Your task to perform on an android device: Open the calendar and show me this week's events? Image 0: 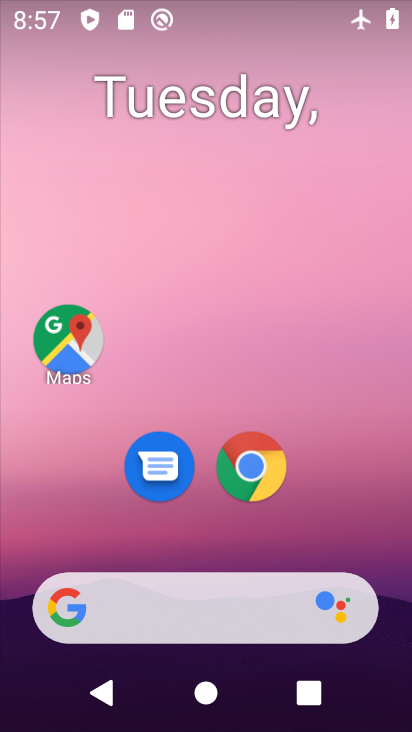
Step 0: drag from (395, 530) to (329, 90)
Your task to perform on an android device: Open the calendar and show me this week's events? Image 1: 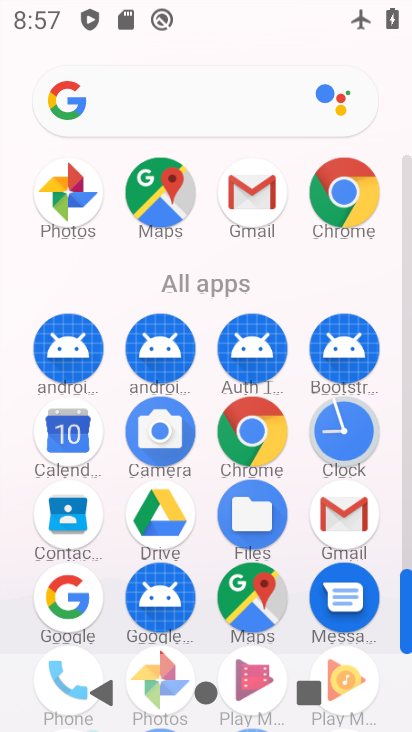
Step 1: click (54, 439)
Your task to perform on an android device: Open the calendar and show me this week's events? Image 2: 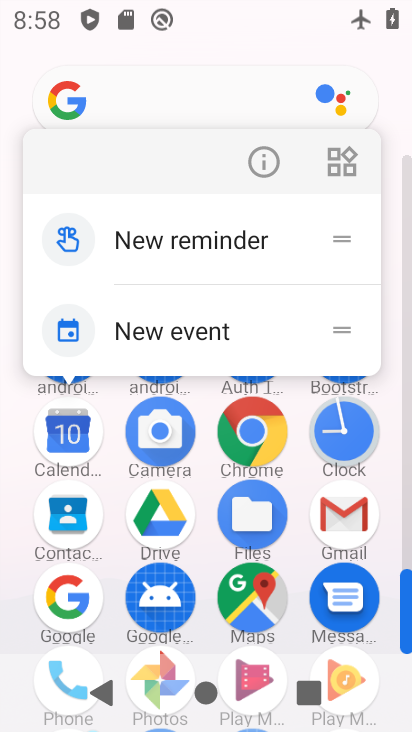
Step 2: click (72, 441)
Your task to perform on an android device: Open the calendar and show me this week's events? Image 3: 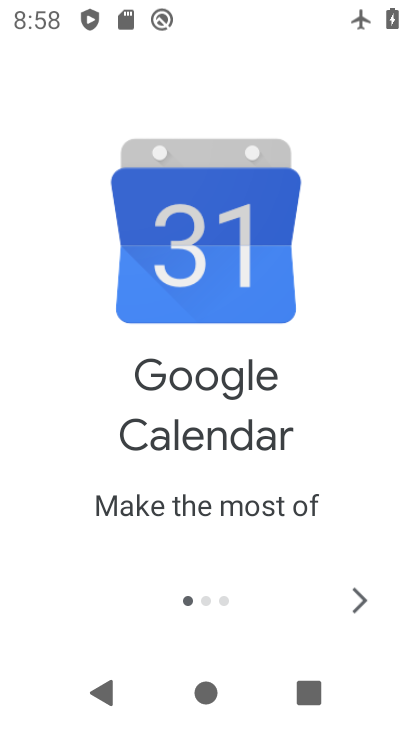
Step 3: click (354, 591)
Your task to perform on an android device: Open the calendar and show me this week's events? Image 4: 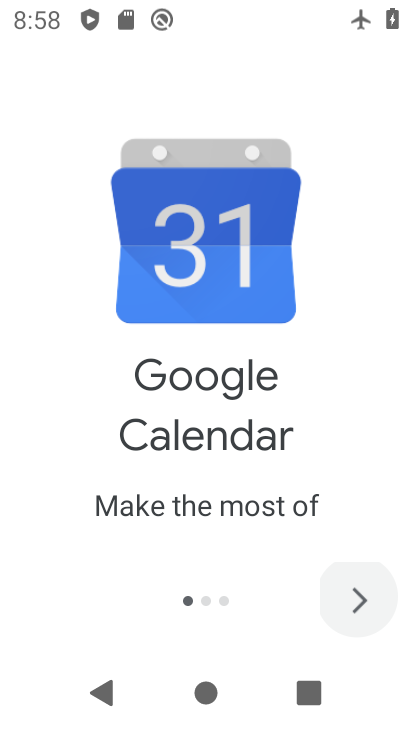
Step 4: click (355, 590)
Your task to perform on an android device: Open the calendar and show me this week's events? Image 5: 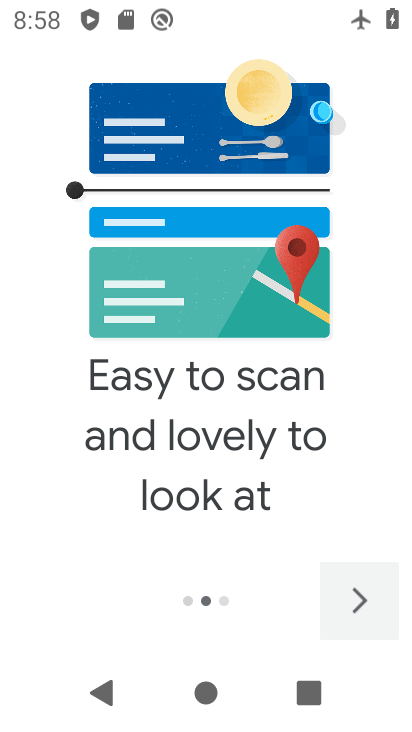
Step 5: click (355, 590)
Your task to perform on an android device: Open the calendar and show me this week's events? Image 6: 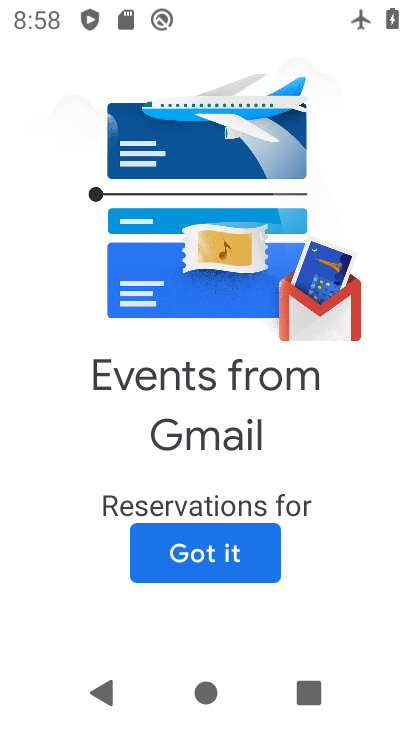
Step 6: click (242, 562)
Your task to perform on an android device: Open the calendar and show me this week's events? Image 7: 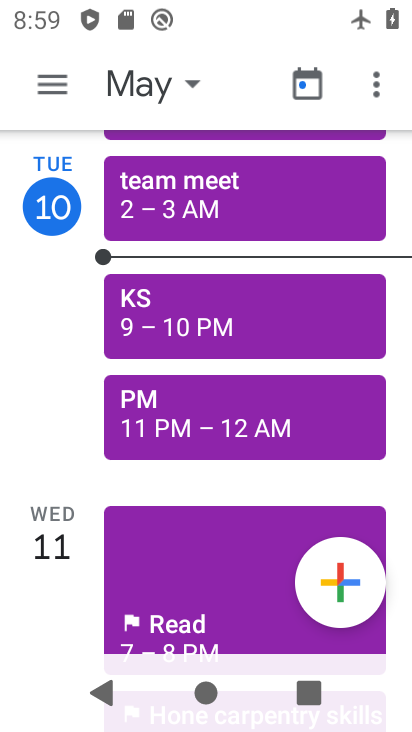
Step 7: click (154, 80)
Your task to perform on an android device: Open the calendar and show me this week's events? Image 8: 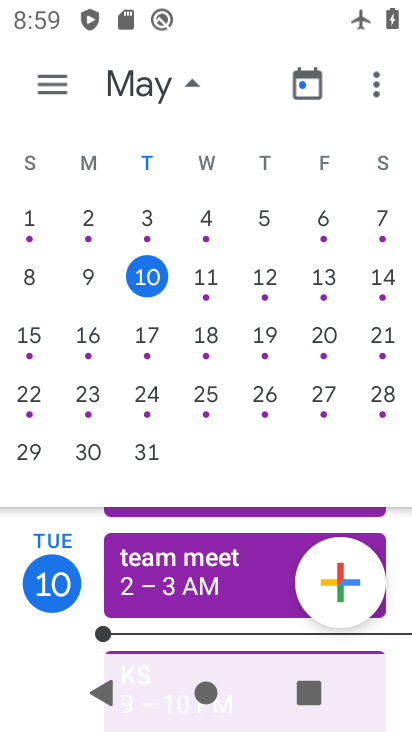
Step 8: click (152, 334)
Your task to perform on an android device: Open the calendar and show me this week's events? Image 9: 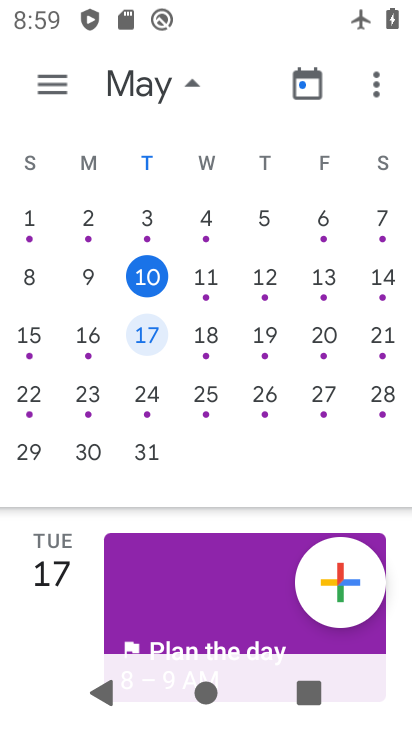
Step 9: click (302, 280)
Your task to perform on an android device: Open the calendar and show me this week's events? Image 10: 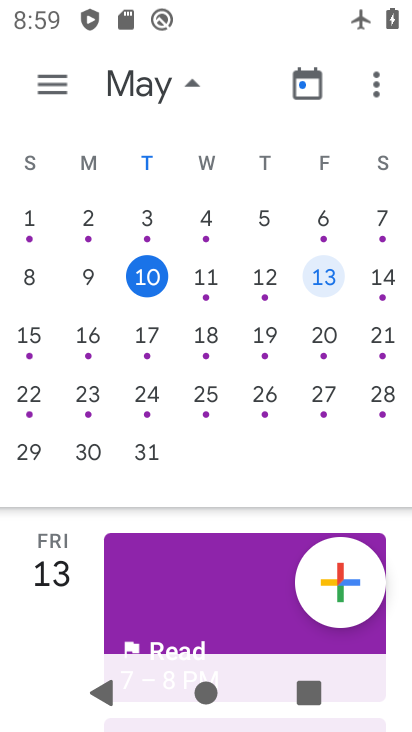
Step 10: click (267, 283)
Your task to perform on an android device: Open the calendar and show me this week's events? Image 11: 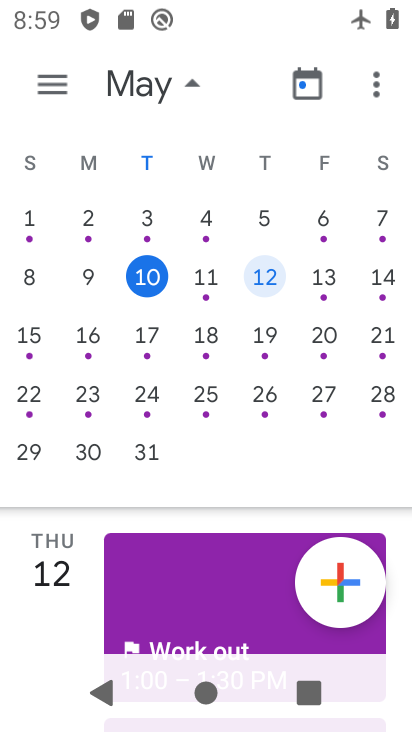
Step 11: click (146, 272)
Your task to perform on an android device: Open the calendar and show me this week's events? Image 12: 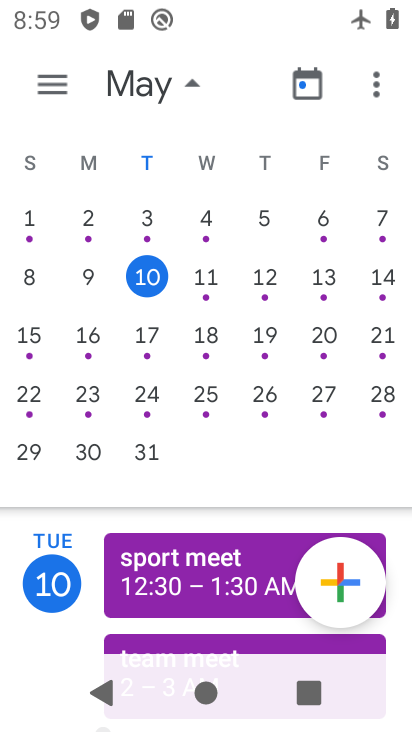
Step 12: click (54, 75)
Your task to perform on an android device: Open the calendar and show me this week's events? Image 13: 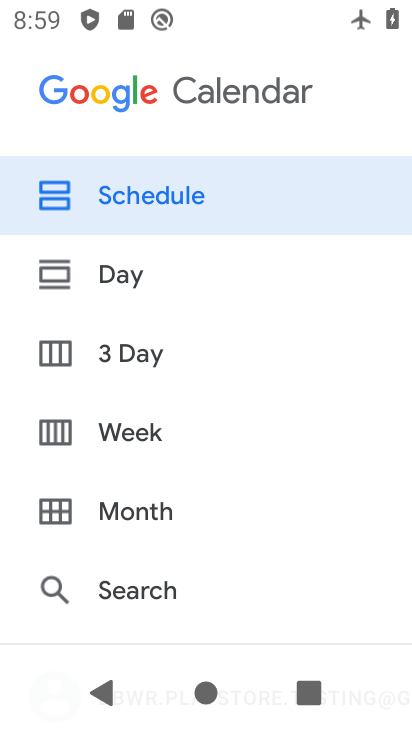
Step 13: click (156, 447)
Your task to perform on an android device: Open the calendar and show me this week's events? Image 14: 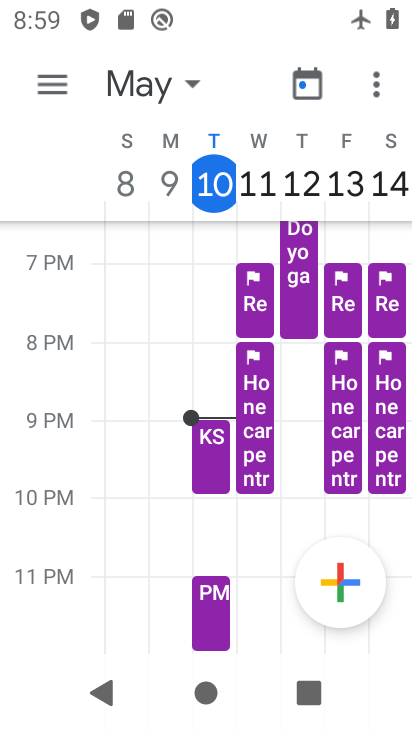
Step 14: task complete